Your task to perform on an android device: toggle notifications settings in the gmail app Image 0: 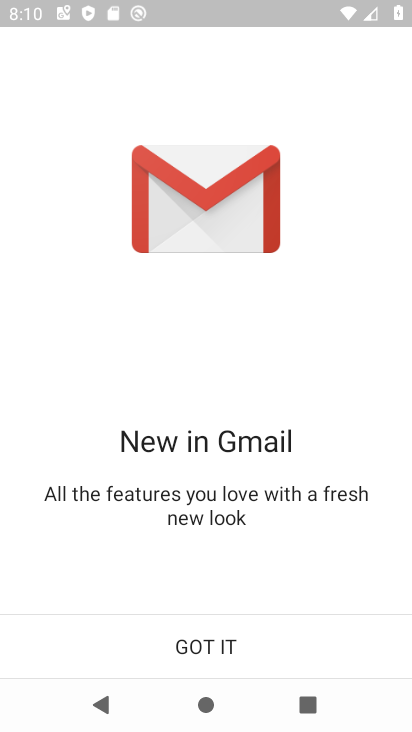
Step 0: click (212, 653)
Your task to perform on an android device: toggle notifications settings in the gmail app Image 1: 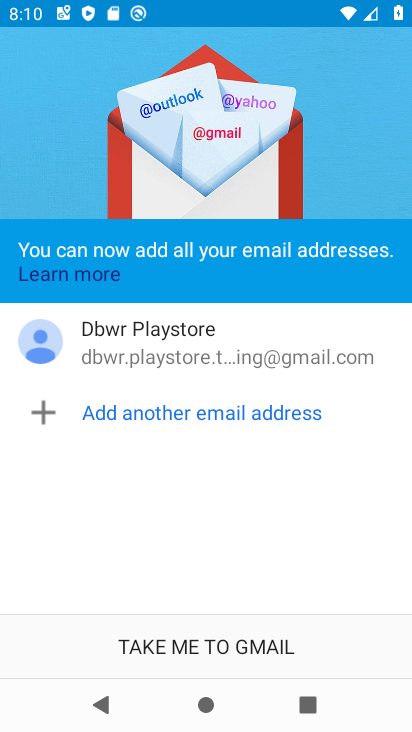
Step 1: click (244, 650)
Your task to perform on an android device: toggle notifications settings in the gmail app Image 2: 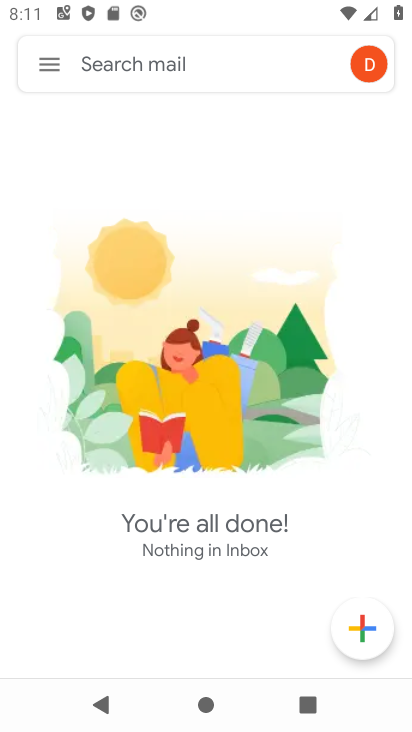
Step 2: click (48, 71)
Your task to perform on an android device: toggle notifications settings in the gmail app Image 3: 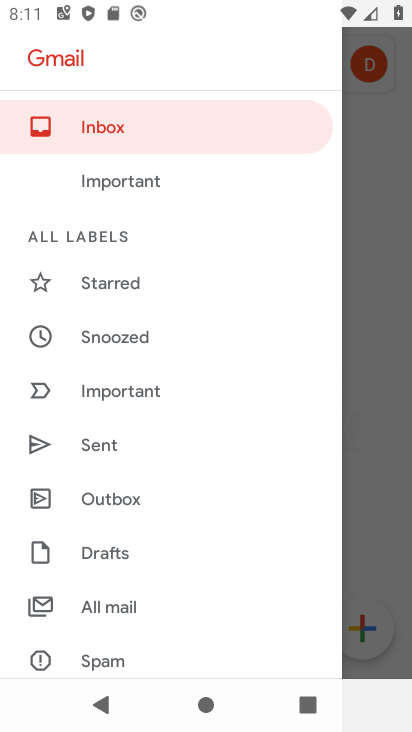
Step 3: drag from (110, 599) to (66, 410)
Your task to perform on an android device: toggle notifications settings in the gmail app Image 4: 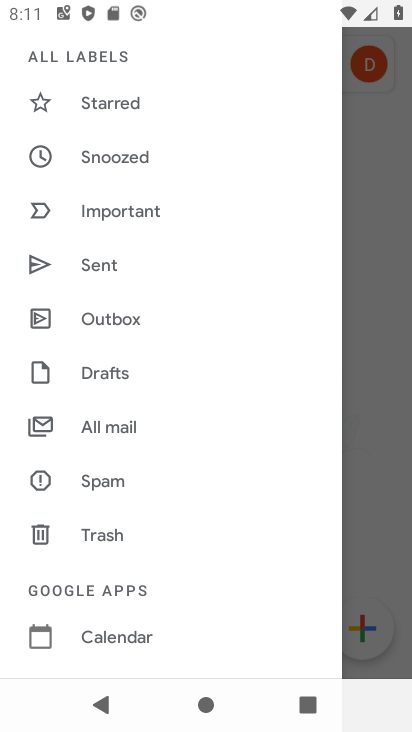
Step 4: drag from (115, 615) to (69, 456)
Your task to perform on an android device: toggle notifications settings in the gmail app Image 5: 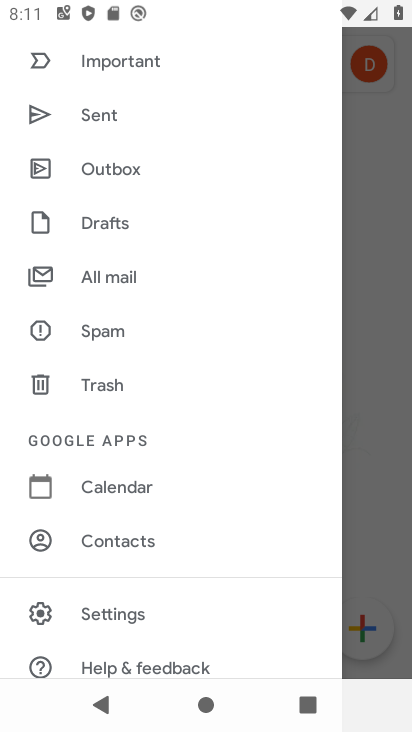
Step 5: click (102, 607)
Your task to perform on an android device: toggle notifications settings in the gmail app Image 6: 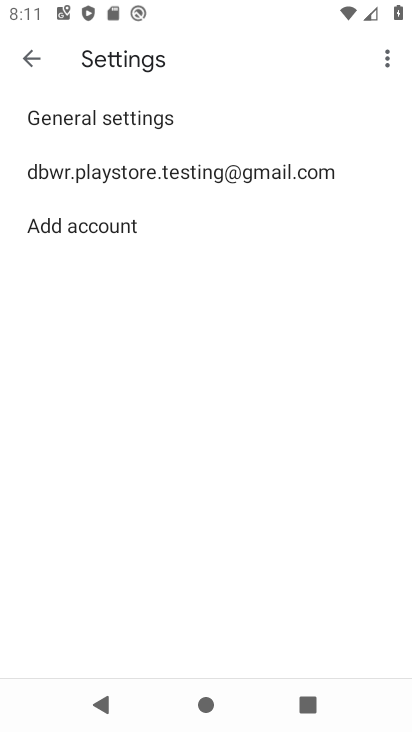
Step 6: click (49, 186)
Your task to perform on an android device: toggle notifications settings in the gmail app Image 7: 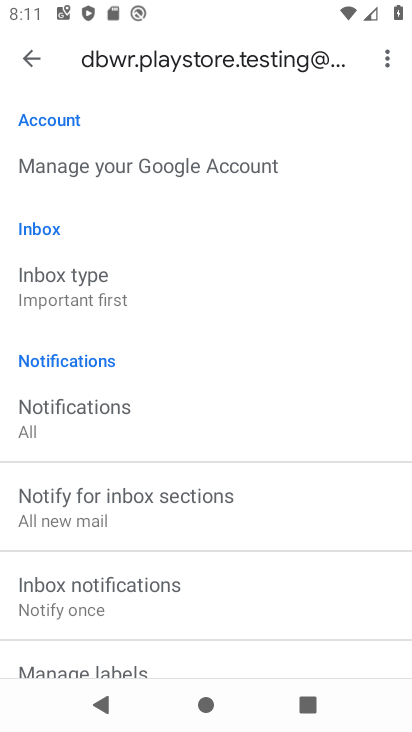
Step 7: drag from (93, 570) to (79, 406)
Your task to perform on an android device: toggle notifications settings in the gmail app Image 8: 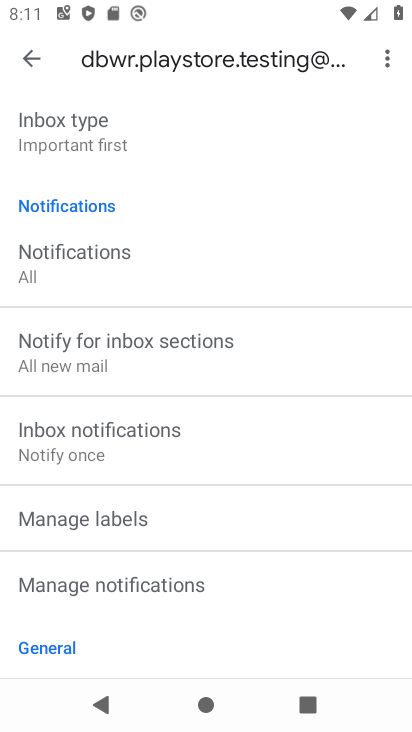
Step 8: click (123, 589)
Your task to perform on an android device: toggle notifications settings in the gmail app Image 9: 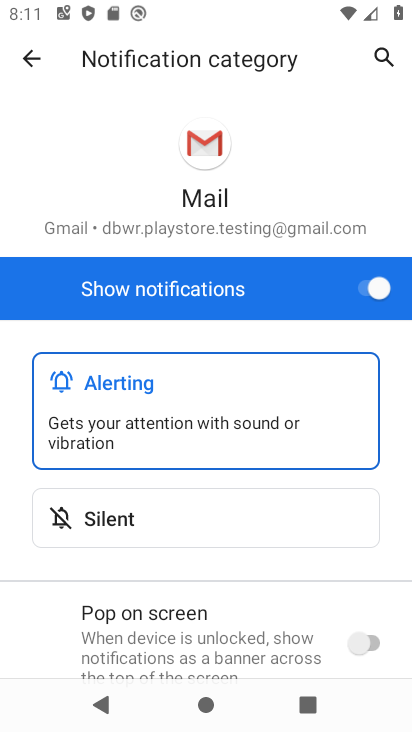
Step 9: click (361, 298)
Your task to perform on an android device: toggle notifications settings in the gmail app Image 10: 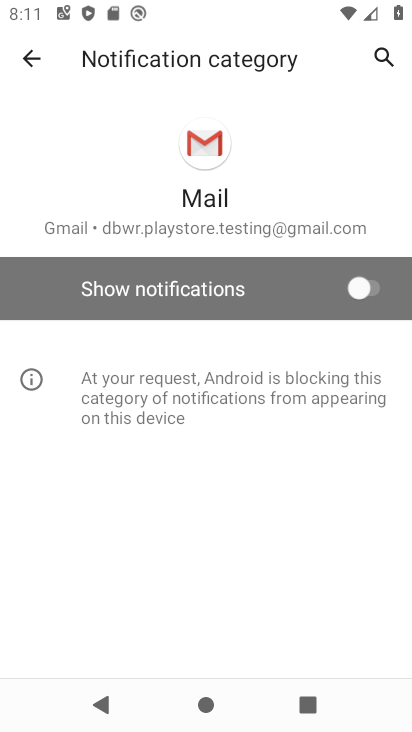
Step 10: task complete